Your task to perform on an android device: open sync settings in chrome Image 0: 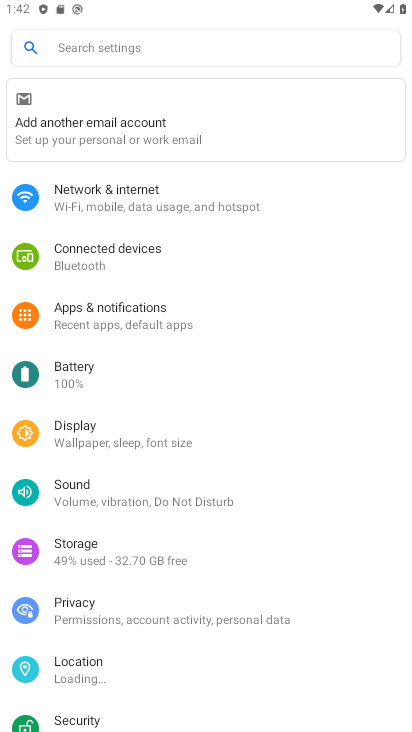
Step 0: press back button
Your task to perform on an android device: open sync settings in chrome Image 1: 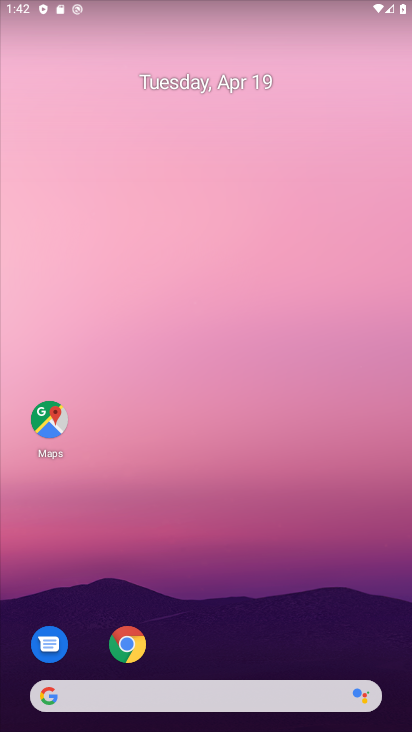
Step 1: click (130, 649)
Your task to perform on an android device: open sync settings in chrome Image 2: 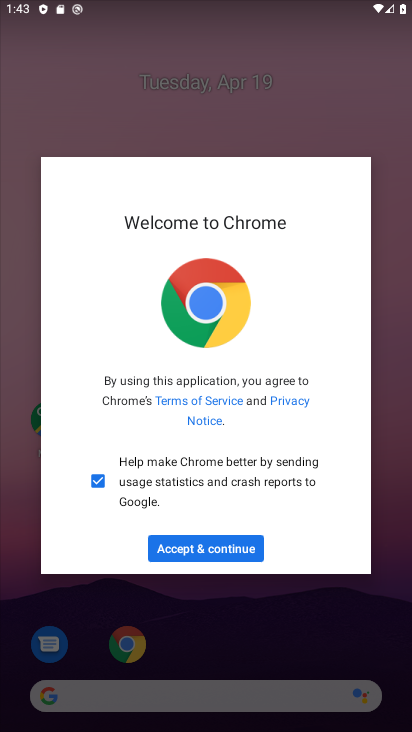
Step 2: click (199, 543)
Your task to perform on an android device: open sync settings in chrome Image 3: 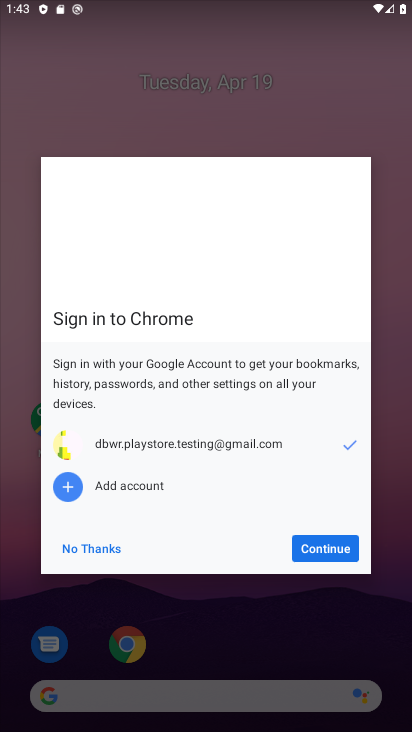
Step 3: click (333, 544)
Your task to perform on an android device: open sync settings in chrome Image 4: 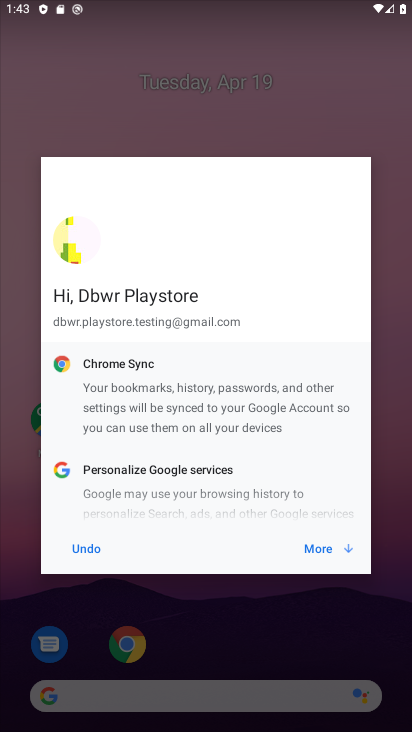
Step 4: click (324, 548)
Your task to perform on an android device: open sync settings in chrome Image 5: 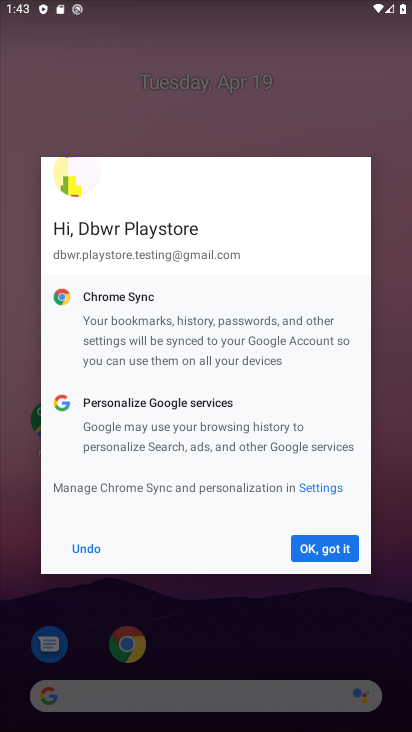
Step 5: click (321, 545)
Your task to perform on an android device: open sync settings in chrome Image 6: 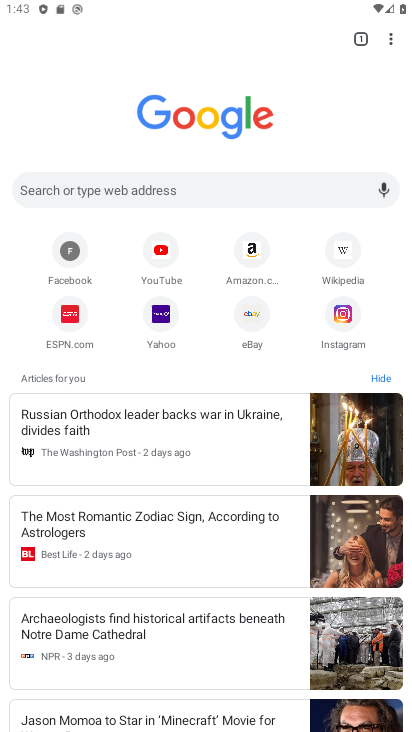
Step 6: click (393, 38)
Your task to perform on an android device: open sync settings in chrome Image 7: 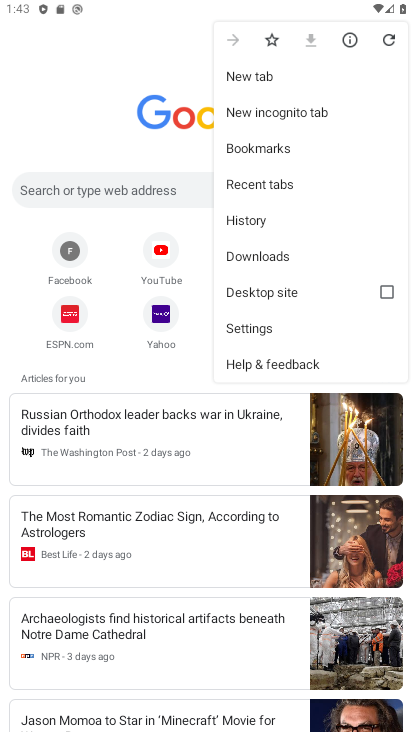
Step 7: click (263, 331)
Your task to perform on an android device: open sync settings in chrome Image 8: 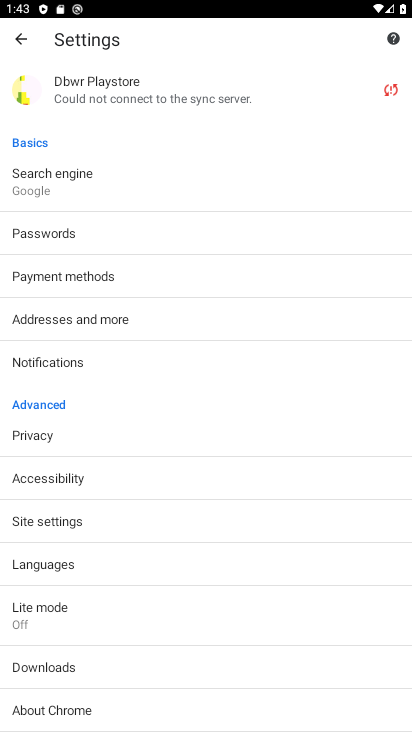
Step 8: drag from (140, 651) to (197, 219)
Your task to perform on an android device: open sync settings in chrome Image 9: 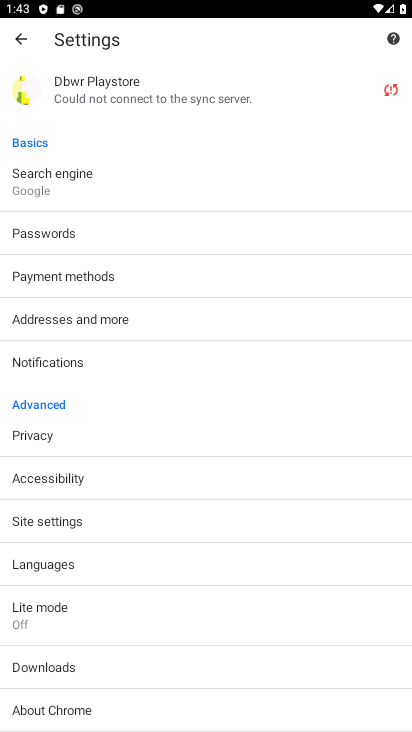
Step 9: click (61, 519)
Your task to perform on an android device: open sync settings in chrome Image 10: 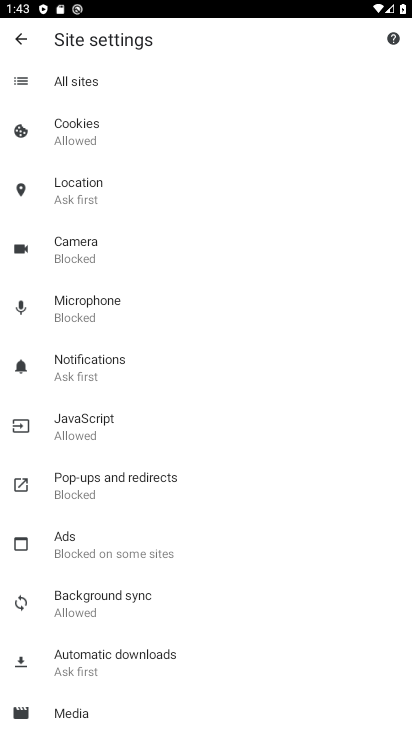
Step 10: click (94, 601)
Your task to perform on an android device: open sync settings in chrome Image 11: 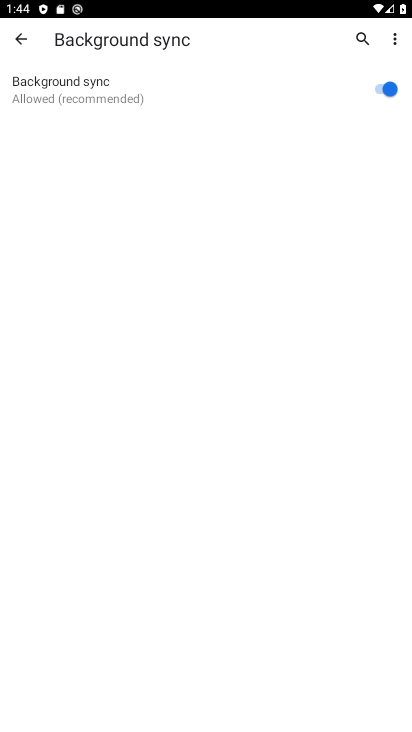
Step 11: task complete